Your task to perform on an android device: change notifications settings Image 0: 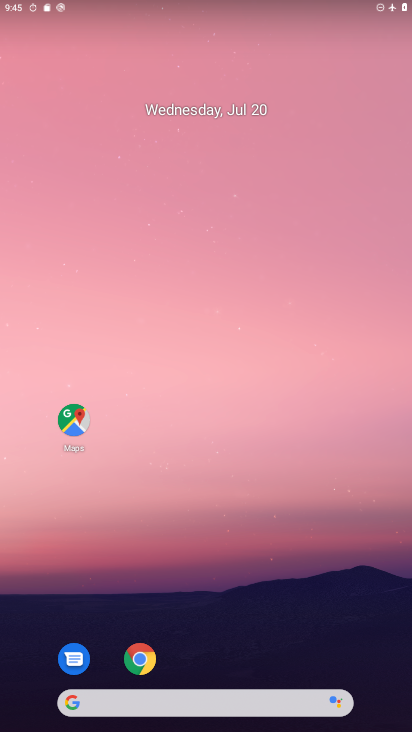
Step 0: drag from (243, 634) to (230, 3)
Your task to perform on an android device: change notifications settings Image 1: 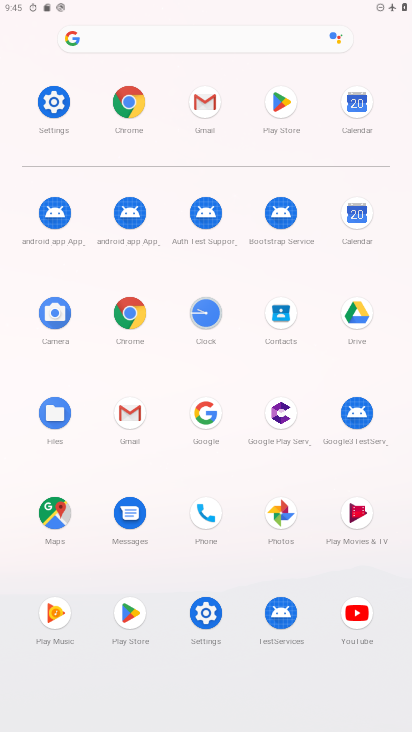
Step 1: click (48, 105)
Your task to perform on an android device: change notifications settings Image 2: 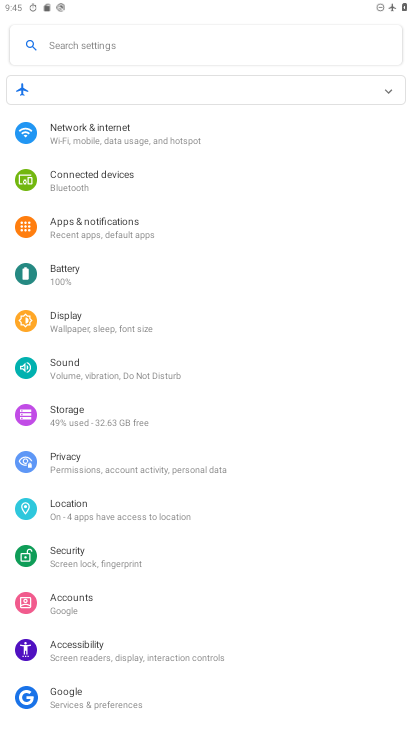
Step 2: click (105, 224)
Your task to perform on an android device: change notifications settings Image 3: 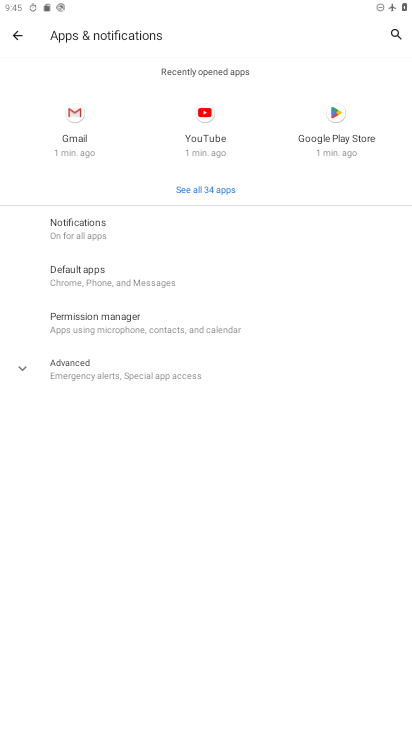
Step 3: click (98, 222)
Your task to perform on an android device: change notifications settings Image 4: 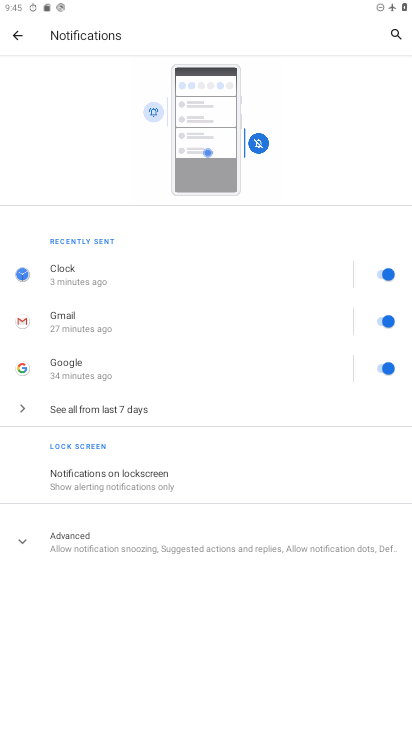
Step 4: task complete